Your task to perform on an android device: install app "Google Chat" Image 0: 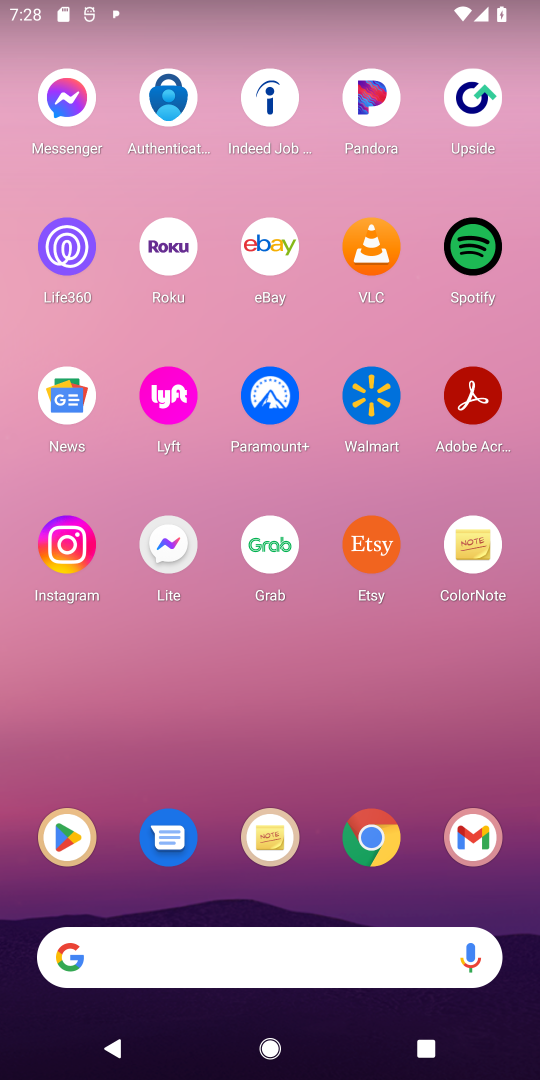
Step 0: click (53, 838)
Your task to perform on an android device: install app "Google Chat" Image 1: 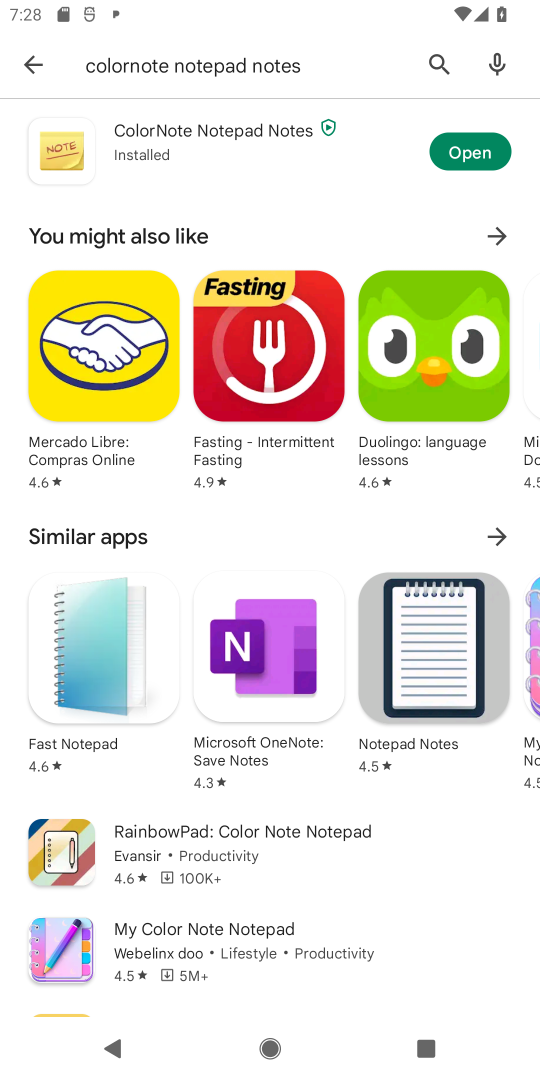
Step 1: click (434, 66)
Your task to perform on an android device: install app "Google Chat" Image 2: 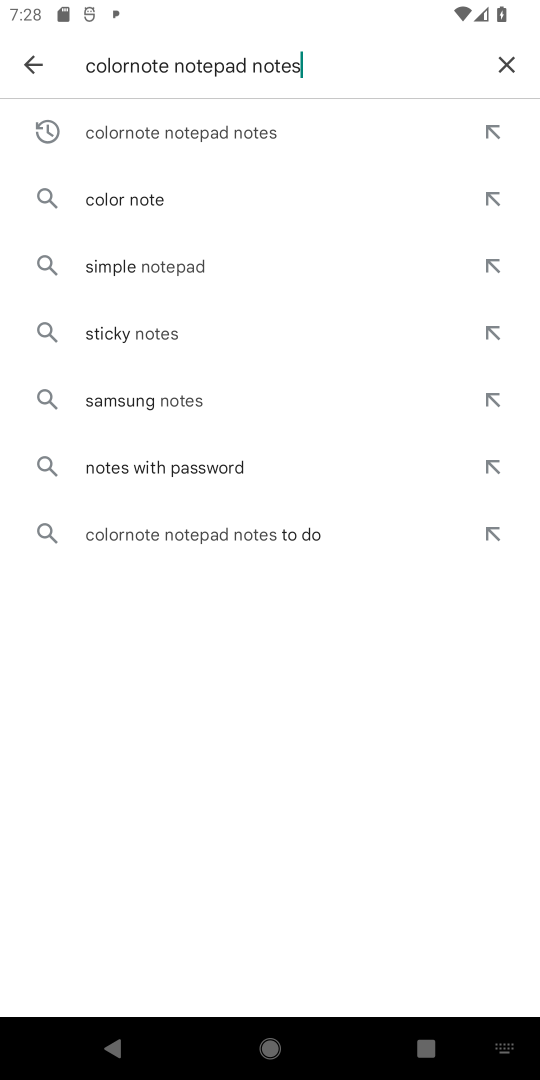
Step 2: click (500, 68)
Your task to perform on an android device: install app "Google Chat" Image 3: 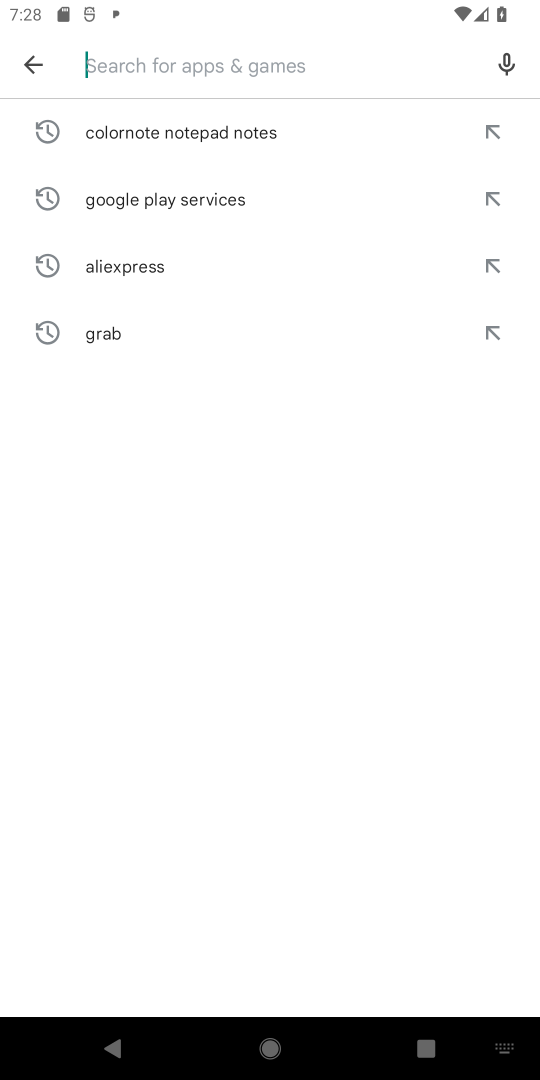
Step 3: type "Google Chat"
Your task to perform on an android device: install app "Google Chat" Image 4: 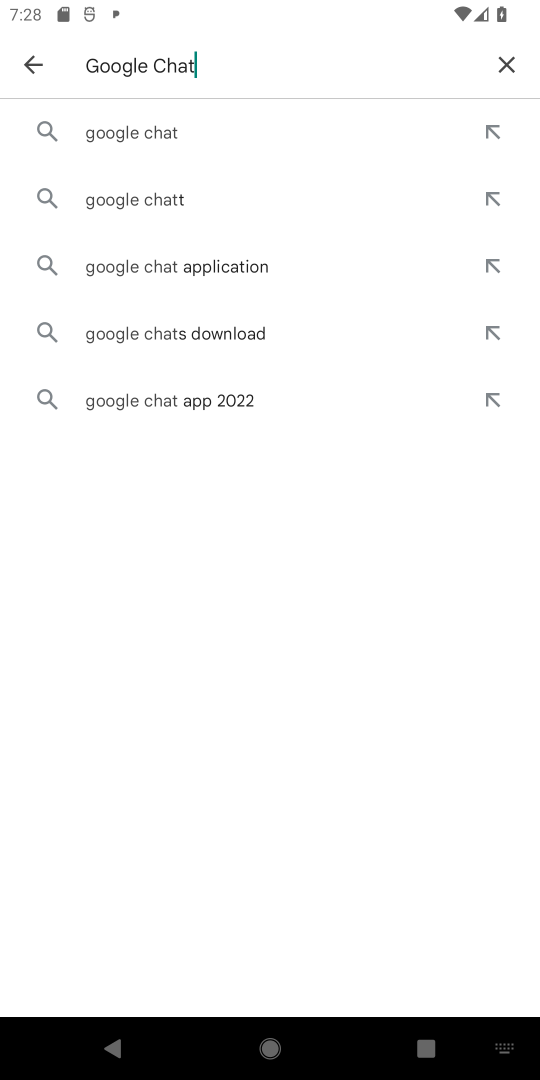
Step 4: click (122, 135)
Your task to perform on an android device: install app "Google Chat" Image 5: 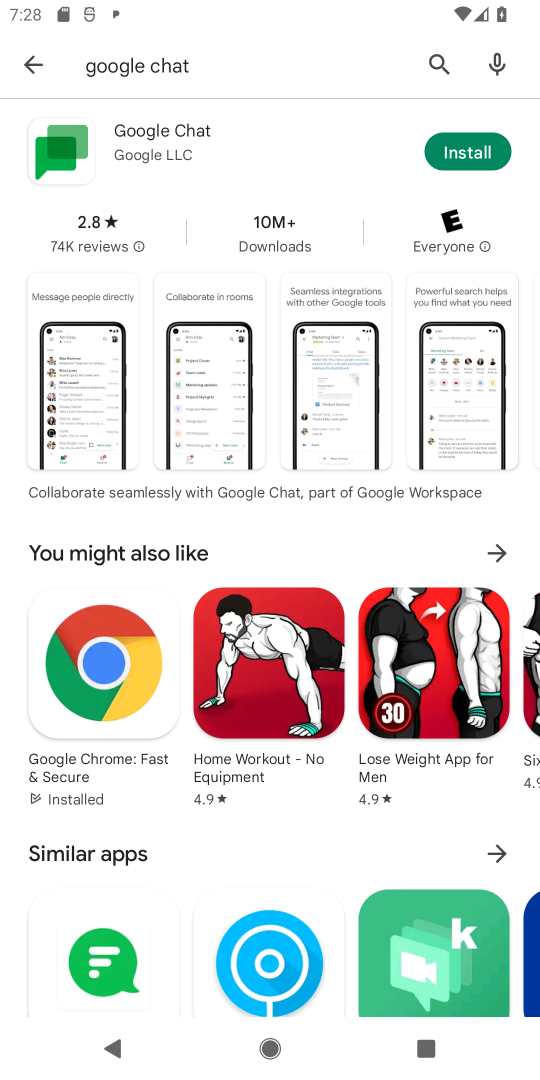
Step 5: click (474, 163)
Your task to perform on an android device: install app "Google Chat" Image 6: 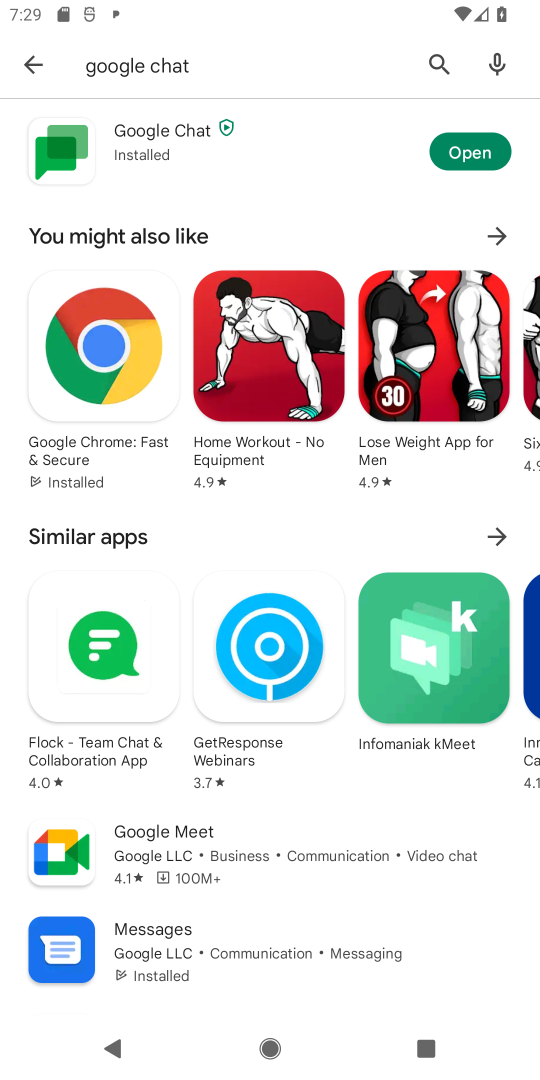
Step 6: task complete